Your task to perform on an android device: Open Google Maps Image 0: 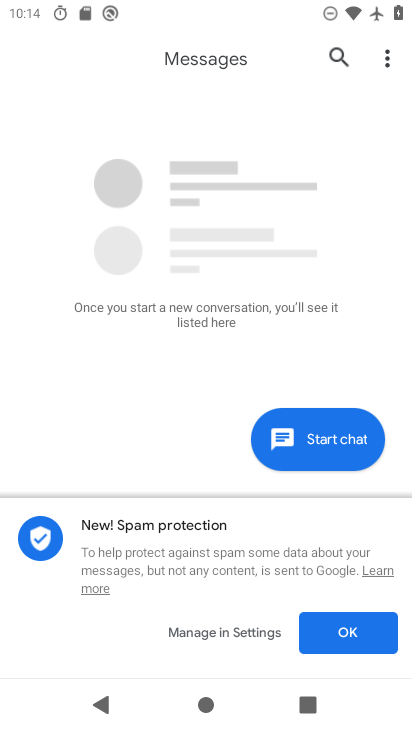
Step 0: press home button
Your task to perform on an android device: Open Google Maps Image 1: 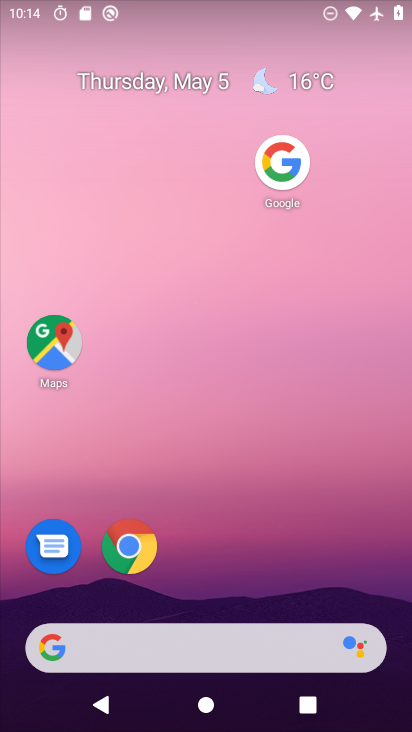
Step 1: drag from (165, 644) to (340, 50)
Your task to perform on an android device: Open Google Maps Image 2: 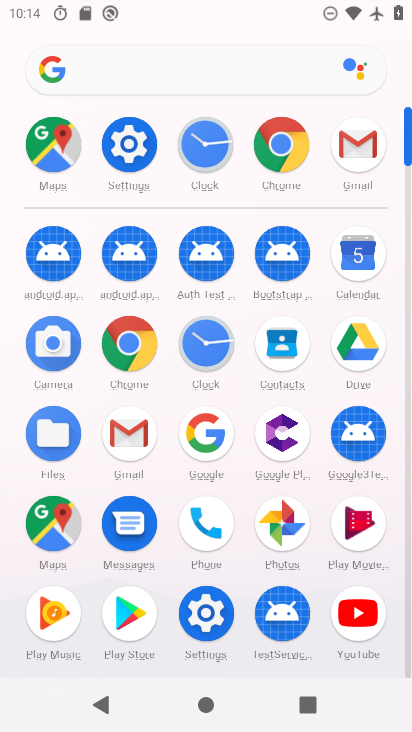
Step 2: click (54, 157)
Your task to perform on an android device: Open Google Maps Image 3: 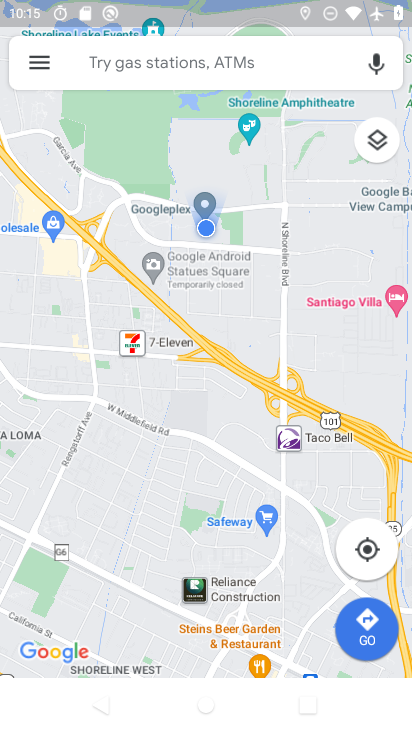
Step 3: task complete